Your task to perform on an android device: toggle wifi Image 0: 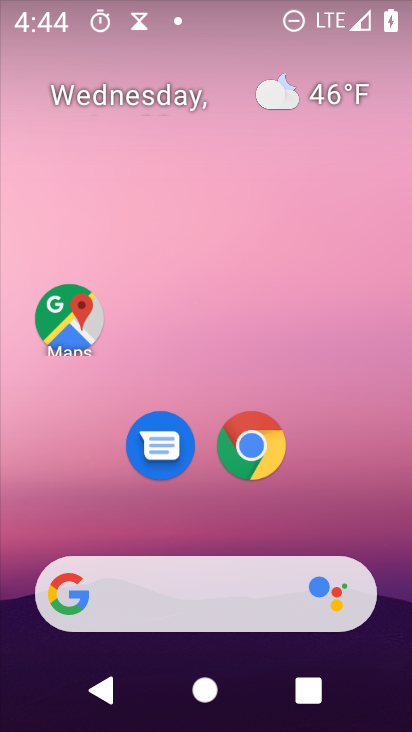
Step 0: drag from (248, 455) to (221, 85)
Your task to perform on an android device: toggle wifi Image 1: 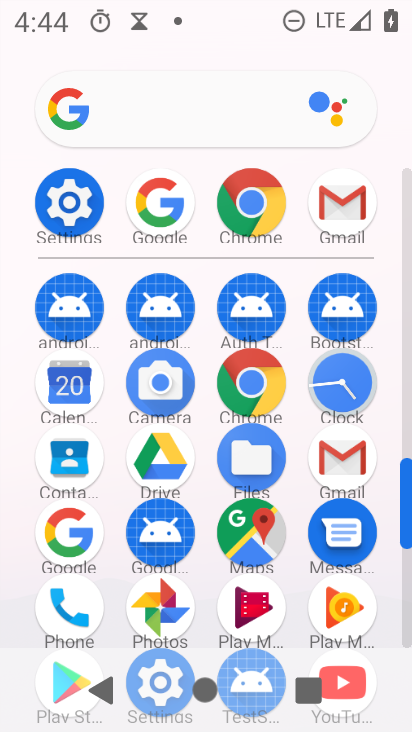
Step 1: click (72, 198)
Your task to perform on an android device: toggle wifi Image 2: 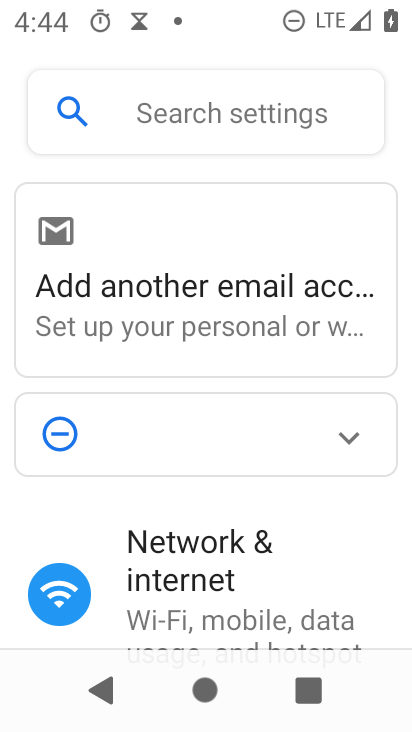
Step 2: click (215, 558)
Your task to perform on an android device: toggle wifi Image 3: 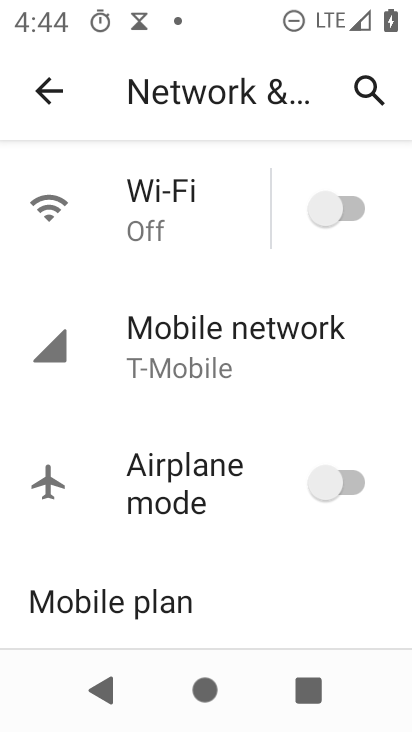
Step 3: click (342, 211)
Your task to perform on an android device: toggle wifi Image 4: 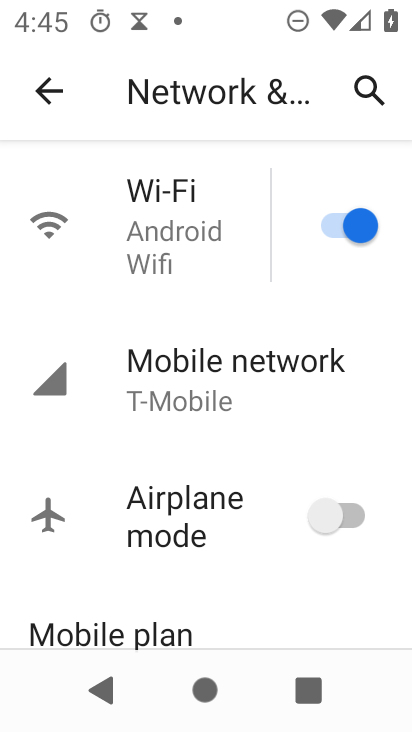
Step 4: task complete